Your task to perform on an android device: Open Youtube and go to "Your channel" Image 0: 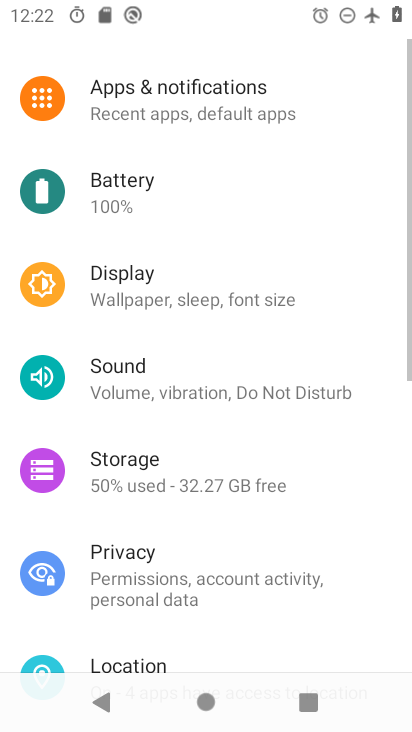
Step 0: press home button
Your task to perform on an android device: Open Youtube and go to "Your channel" Image 1: 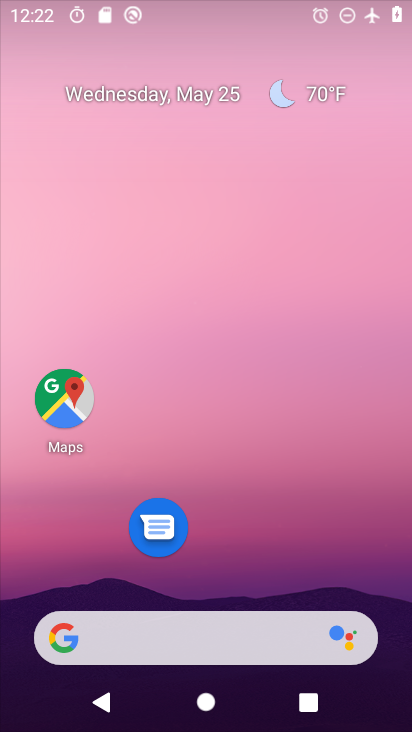
Step 1: drag from (261, 569) to (313, 66)
Your task to perform on an android device: Open Youtube and go to "Your channel" Image 2: 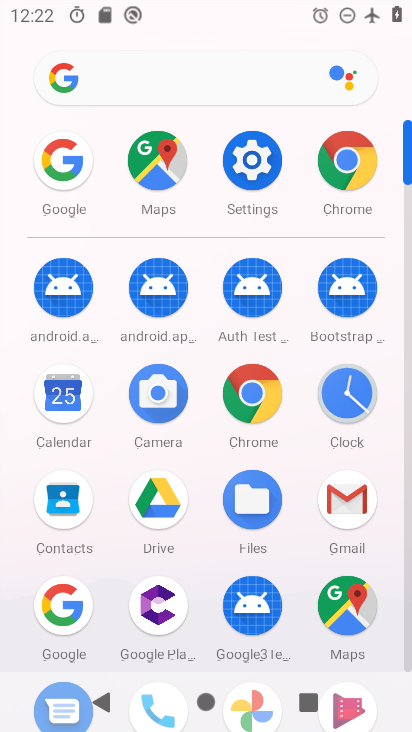
Step 2: drag from (304, 532) to (317, 129)
Your task to perform on an android device: Open Youtube and go to "Your channel" Image 3: 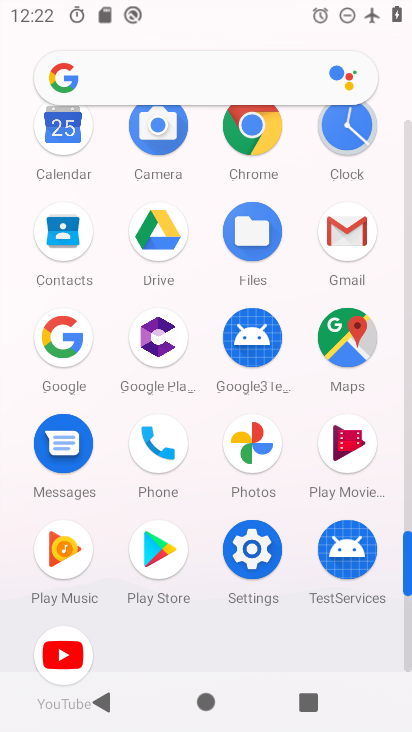
Step 3: click (68, 654)
Your task to perform on an android device: Open Youtube and go to "Your channel" Image 4: 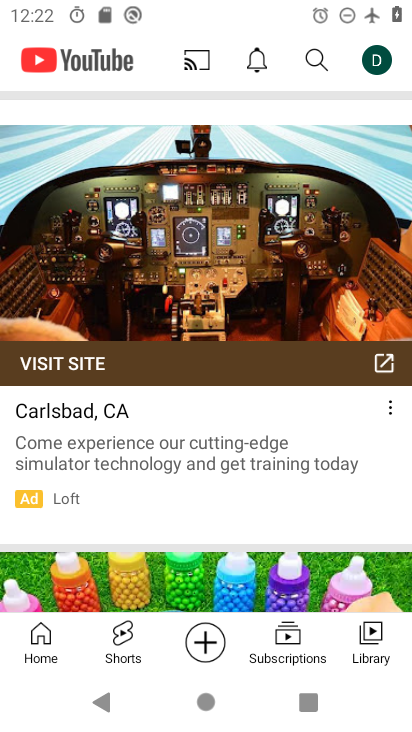
Step 4: click (387, 59)
Your task to perform on an android device: Open Youtube and go to "Your channel" Image 5: 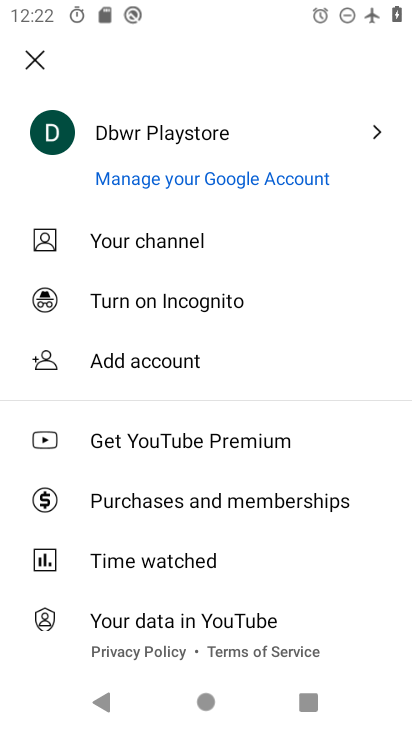
Step 5: click (177, 232)
Your task to perform on an android device: Open Youtube and go to "Your channel" Image 6: 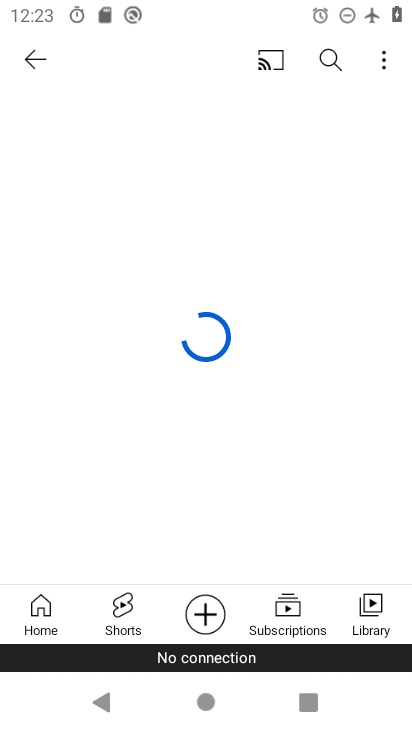
Step 6: task complete